Your task to perform on an android device: Open Maps and search for coffee Image 0: 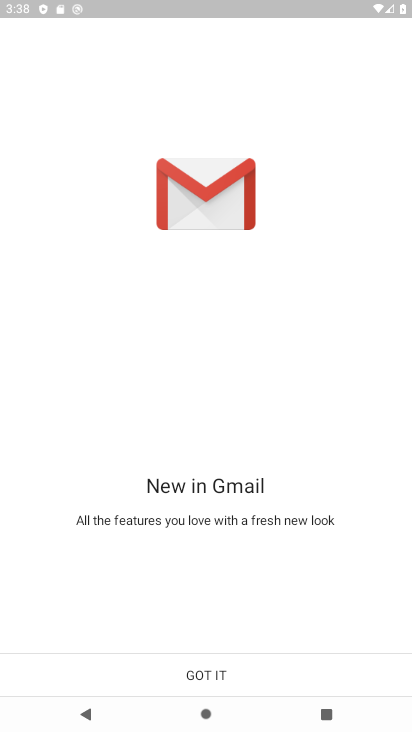
Step 0: press home button
Your task to perform on an android device: Open Maps and search for coffee Image 1: 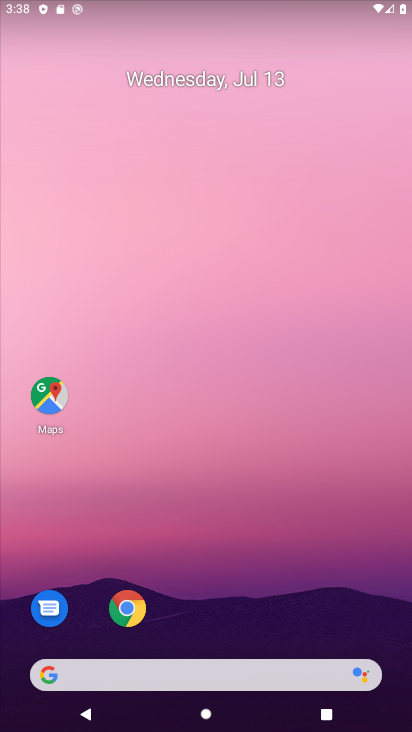
Step 1: click (296, 373)
Your task to perform on an android device: Open Maps and search for coffee Image 2: 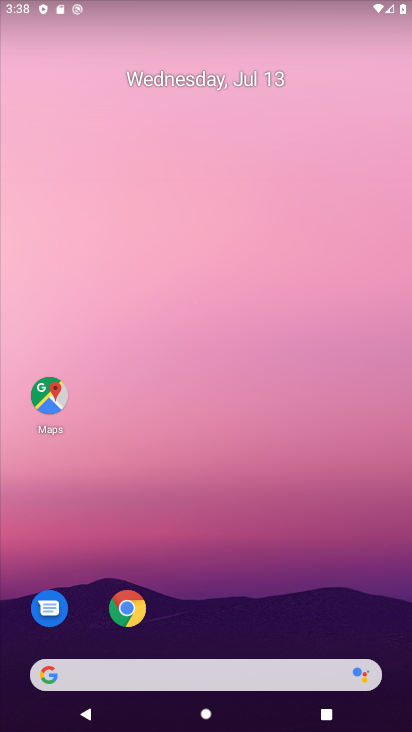
Step 2: drag from (197, 536) to (257, 222)
Your task to perform on an android device: Open Maps and search for coffee Image 3: 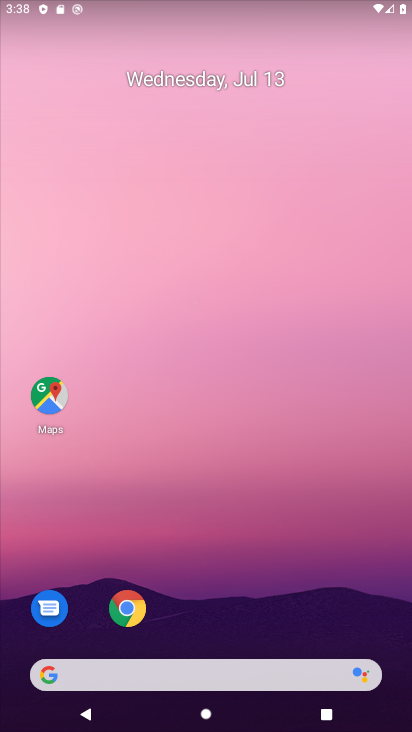
Step 3: drag from (242, 652) to (278, 275)
Your task to perform on an android device: Open Maps and search for coffee Image 4: 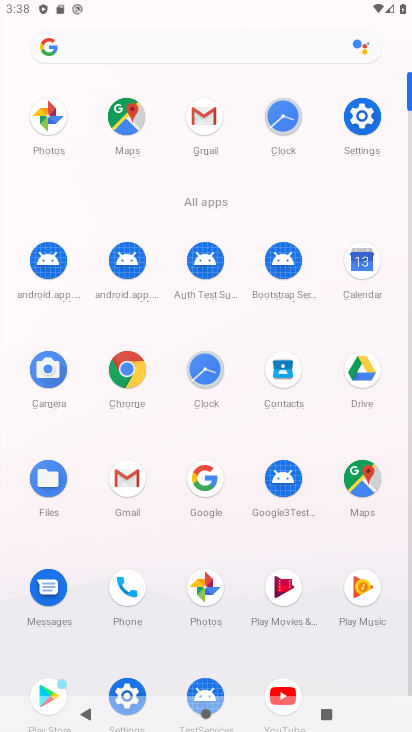
Step 4: click (354, 498)
Your task to perform on an android device: Open Maps and search for coffee Image 5: 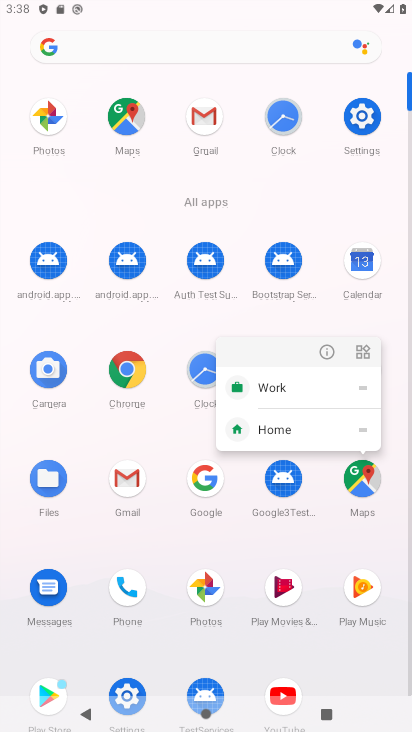
Step 5: click (354, 498)
Your task to perform on an android device: Open Maps and search for coffee Image 6: 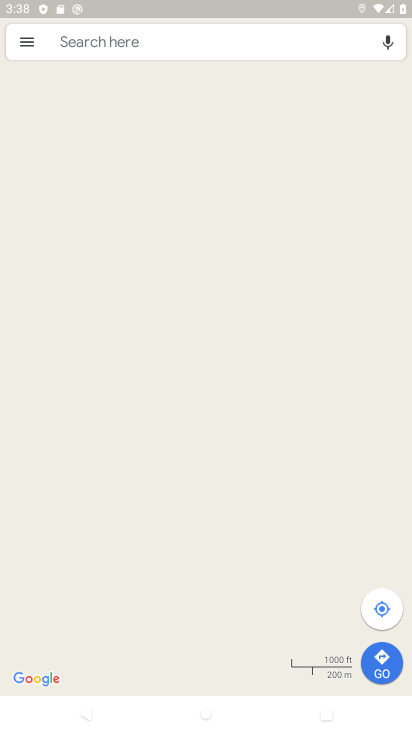
Step 6: click (185, 47)
Your task to perform on an android device: Open Maps and search for coffee Image 7: 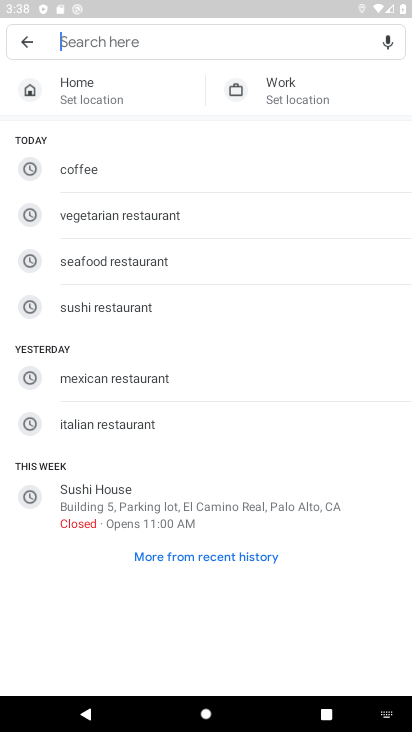
Step 7: type "Coffee"
Your task to perform on an android device: Open Maps and search for coffee Image 8: 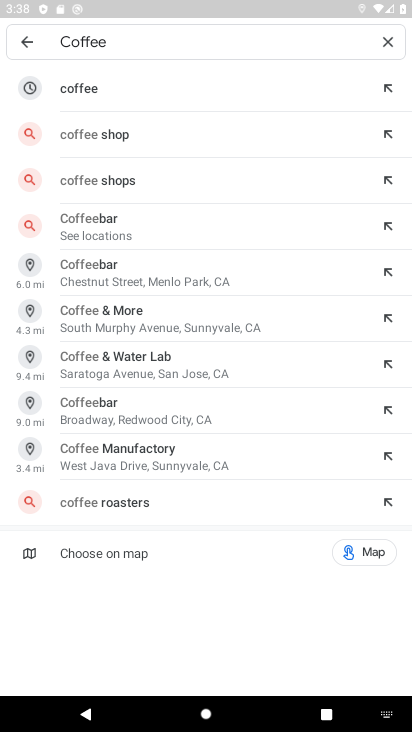
Step 8: click (164, 91)
Your task to perform on an android device: Open Maps and search for coffee Image 9: 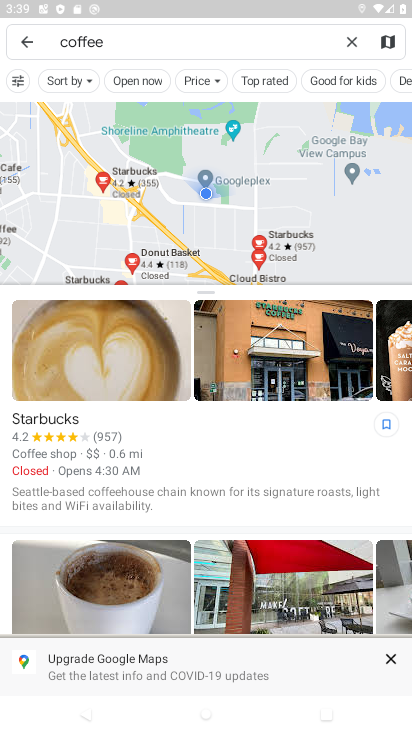
Step 9: task complete